Your task to perform on an android device: Empty the shopping cart on bestbuy. Add razer blade to the cart on bestbuy, then select checkout. Image 0: 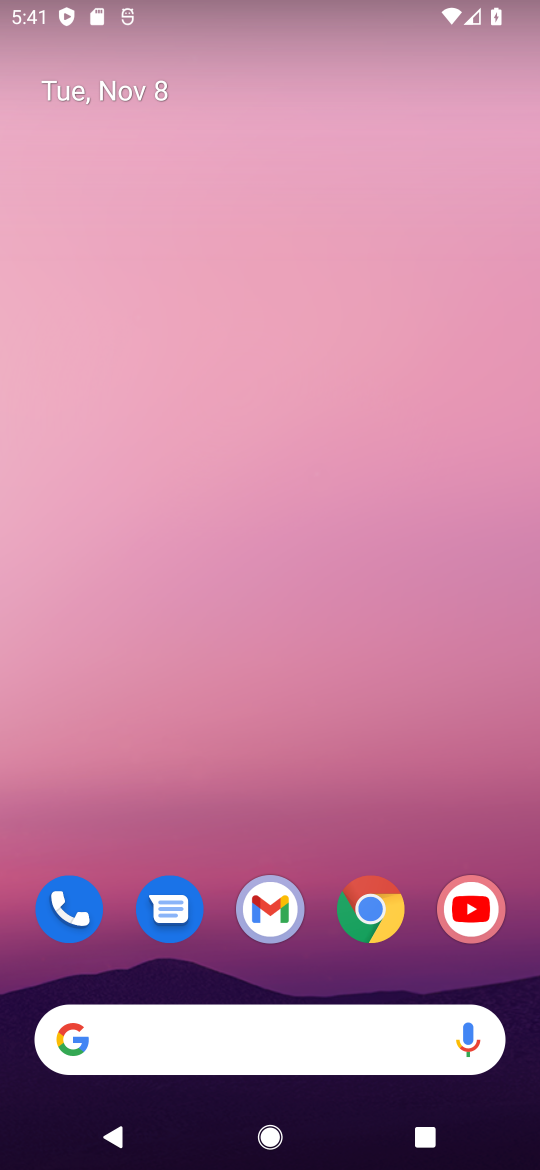
Step 0: click (350, 911)
Your task to perform on an android device: Empty the shopping cart on bestbuy. Add razer blade to the cart on bestbuy, then select checkout. Image 1: 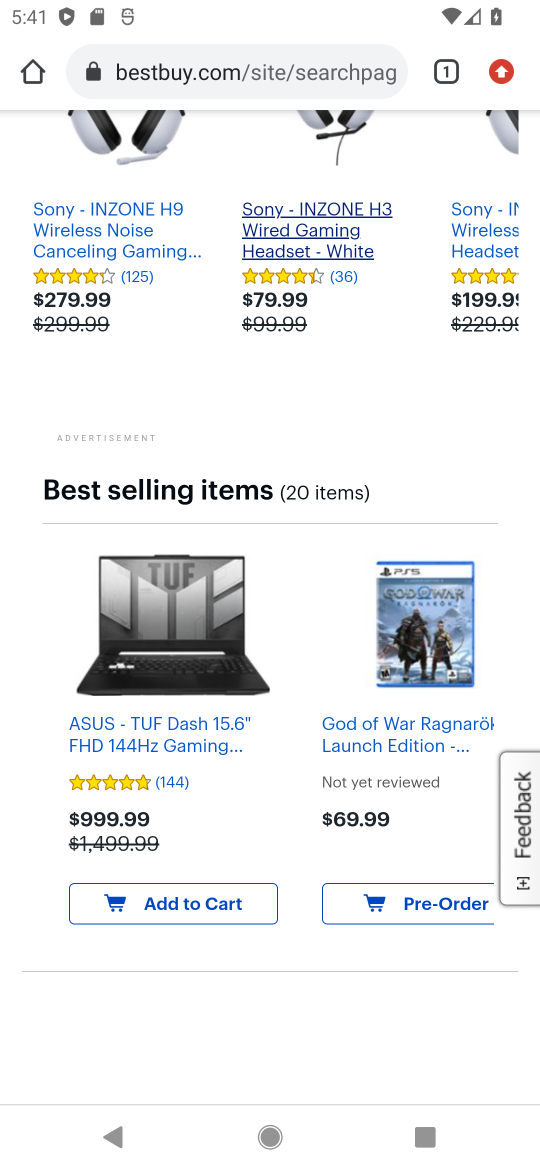
Step 1: drag from (432, 192) to (149, 1033)
Your task to perform on an android device: Empty the shopping cart on bestbuy. Add razer blade to the cart on bestbuy, then select checkout. Image 2: 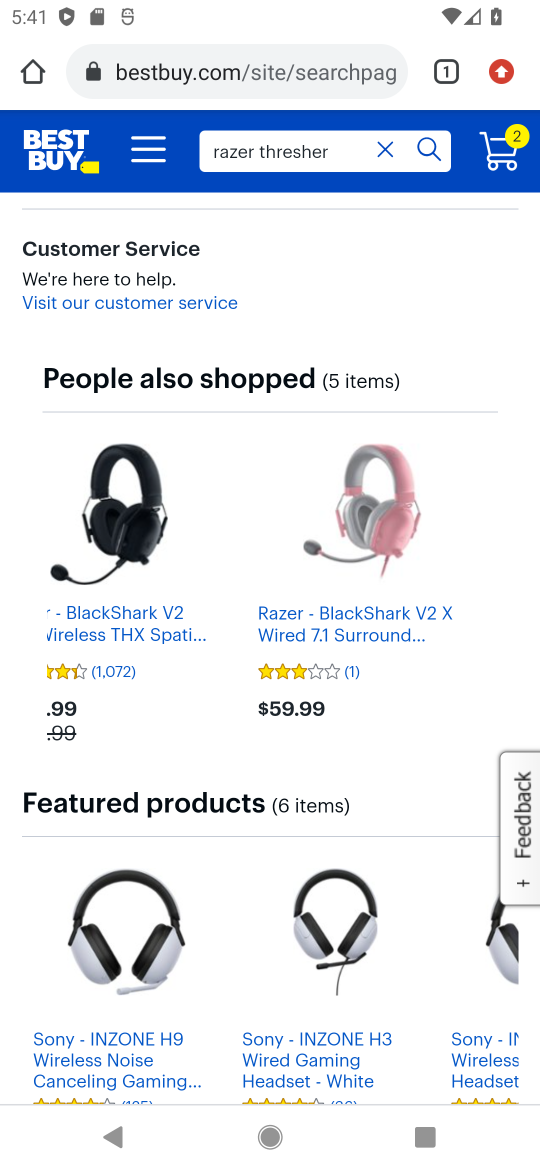
Step 2: click (504, 140)
Your task to perform on an android device: Empty the shopping cart on bestbuy. Add razer blade to the cart on bestbuy, then select checkout. Image 3: 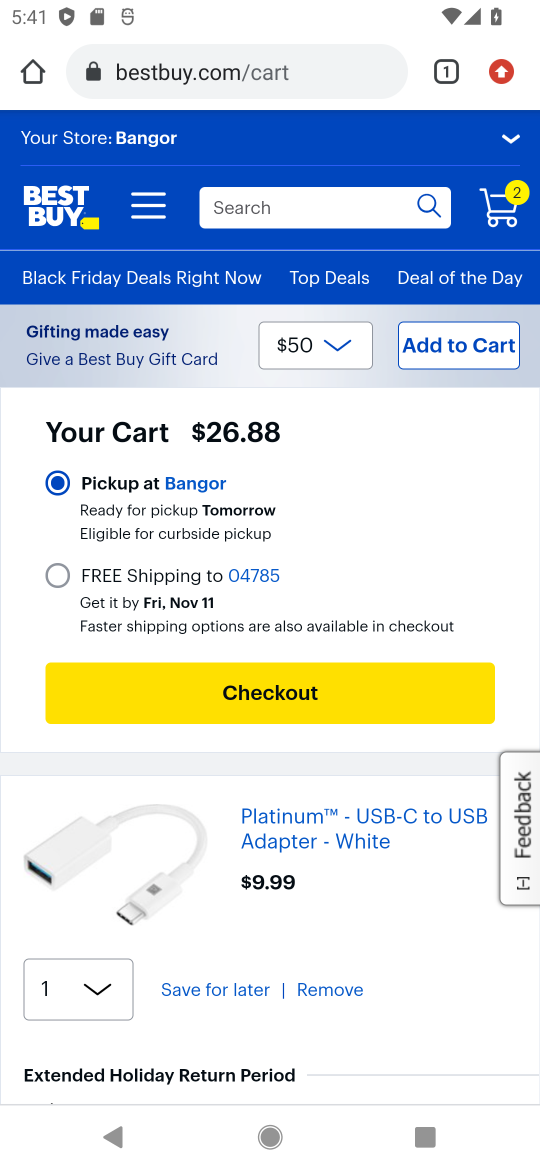
Step 3: drag from (328, 919) to (340, 440)
Your task to perform on an android device: Empty the shopping cart on bestbuy. Add razer blade to the cart on bestbuy, then select checkout. Image 4: 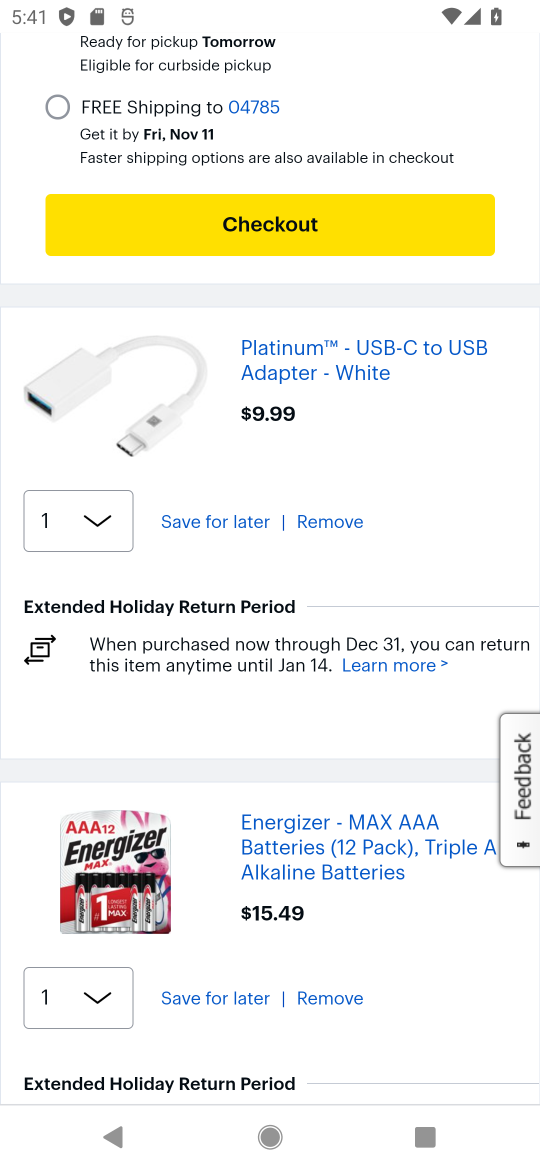
Step 4: click (327, 516)
Your task to perform on an android device: Empty the shopping cart on bestbuy. Add razer blade to the cart on bestbuy, then select checkout. Image 5: 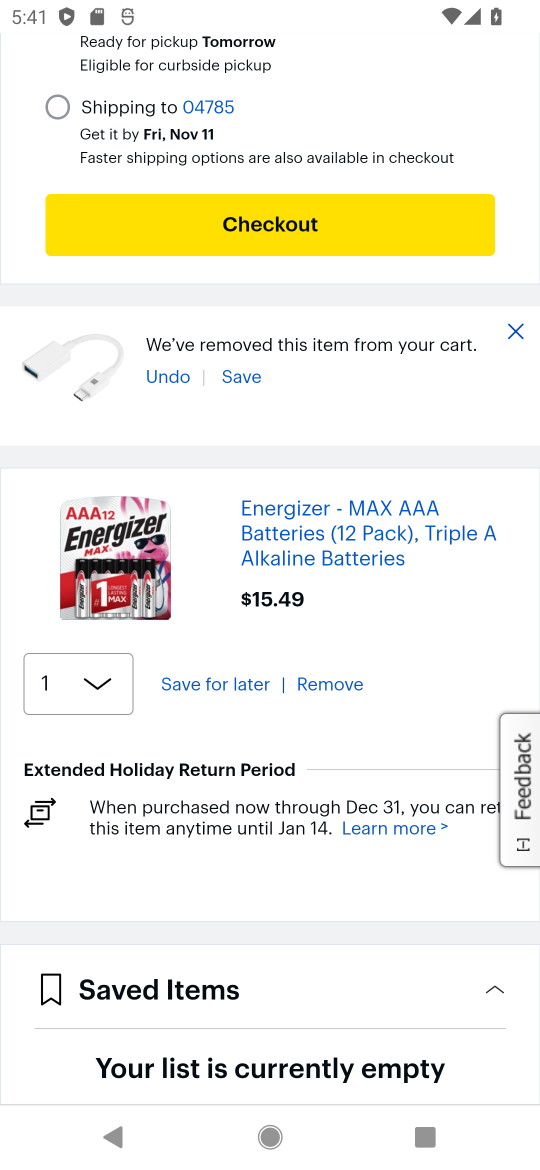
Step 5: click (338, 675)
Your task to perform on an android device: Empty the shopping cart on bestbuy. Add razer blade to the cart on bestbuy, then select checkout. Image 6: 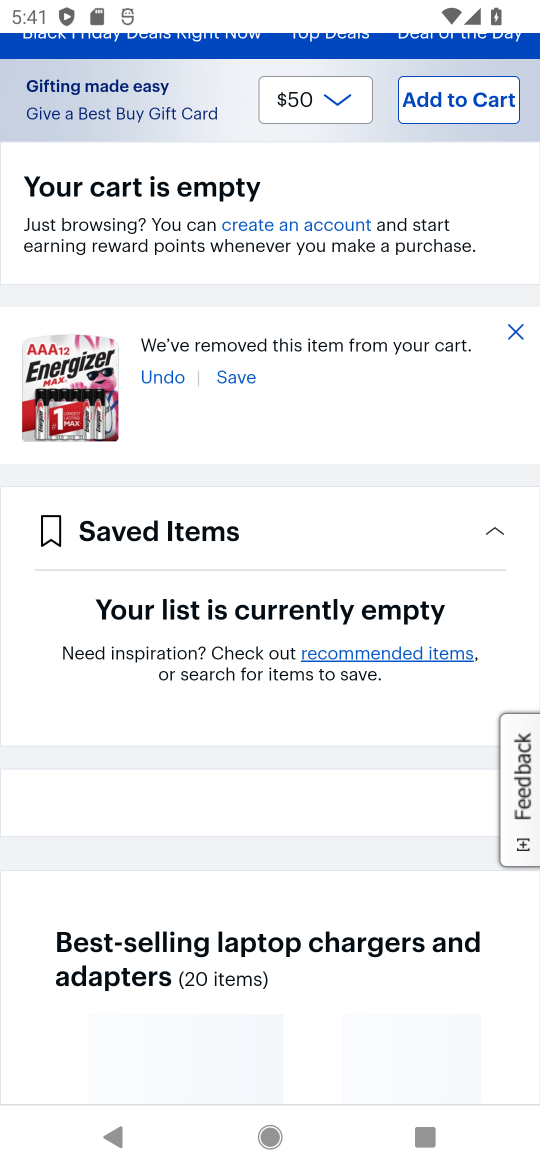
Step 6: drag from (334, 275) to (252, 561)
Your task to perform on an android device: Empty the shopping cart on bestbuy. Add razer blade to the cart on bestbuy, then select checkout. Image 7: 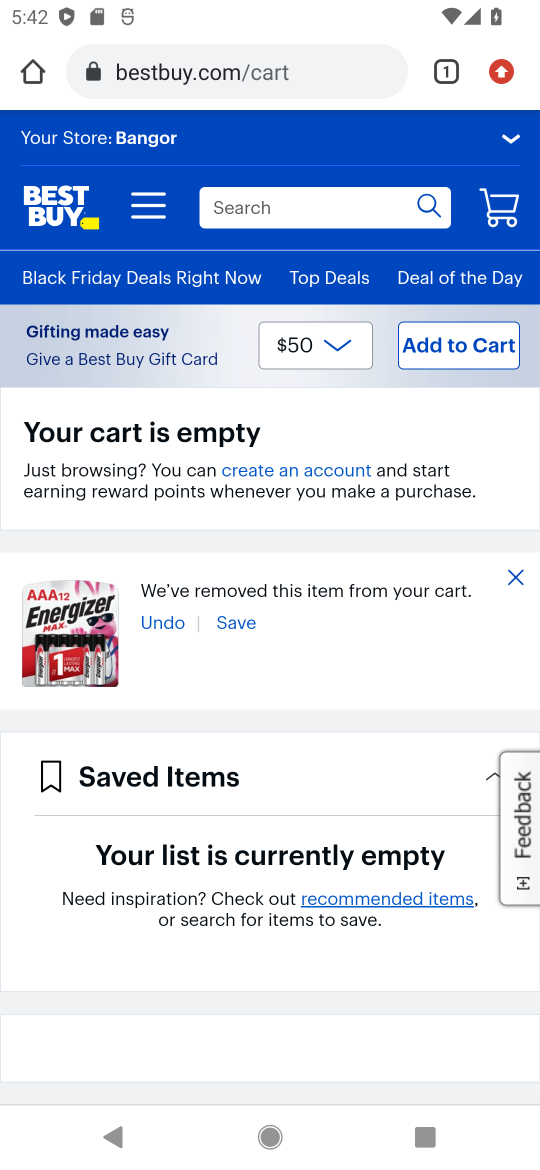
Step 7: click (303, 214)
Your task to perform on an android device: Empty the shopping cart on bestbuy. Add razer blade to the cart on bestbuy, then select checkout. Image 8: 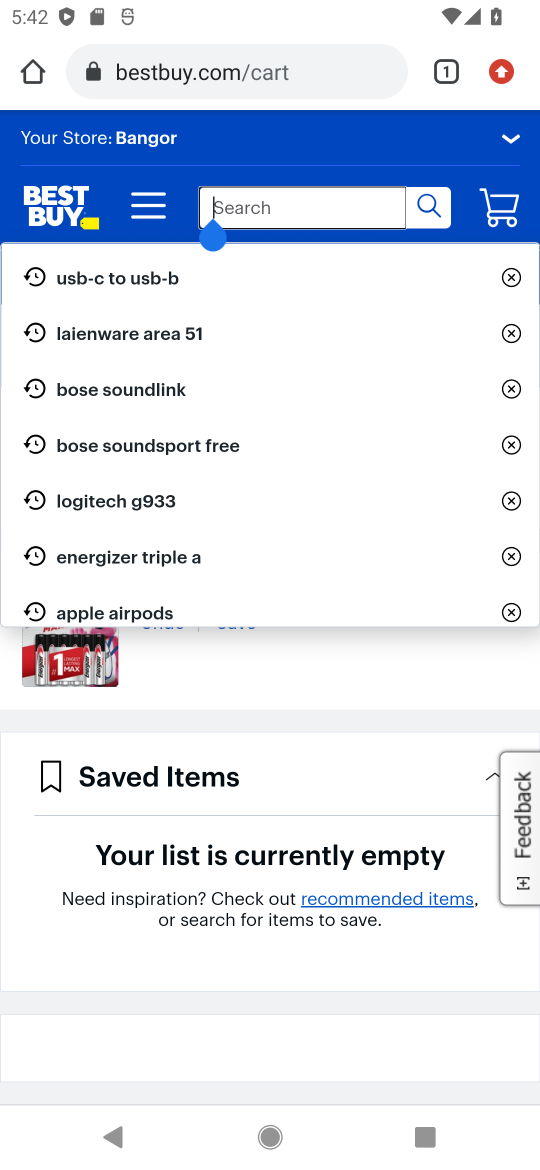
Step 8: type " razer blade"
Your task to perform on an android device: Empty the shopping cart on bestbuy. Add razer blade to the cart on bestbuy, then select checkout. Image 9: 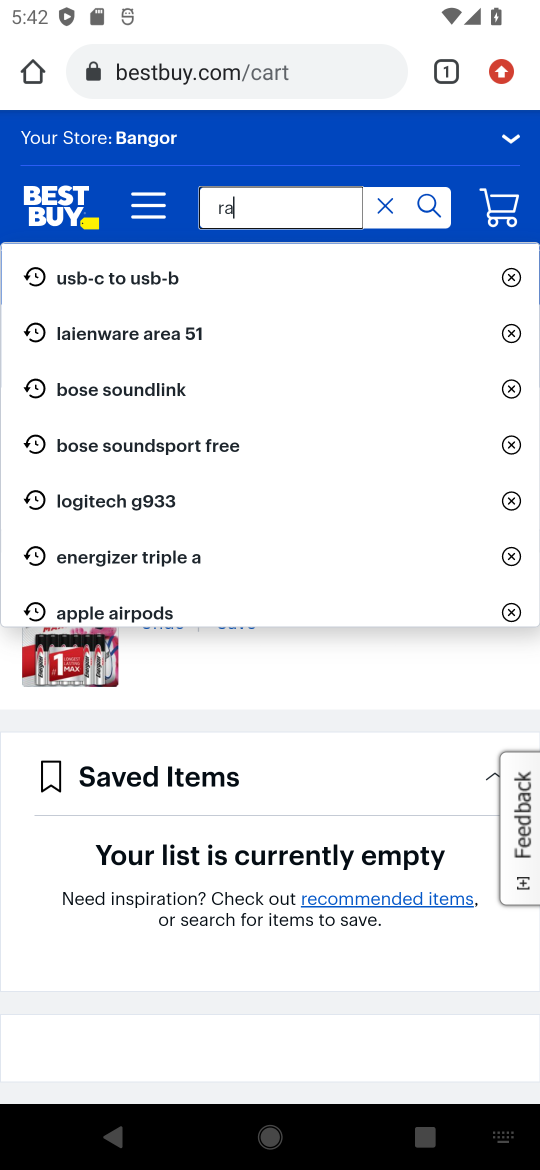
Step 9: press enter
Your task to perform on an android device: Empty the shopping cart on bestbuy. Add razer blade to the cart on bestbuy, then select checkout. Image 10: 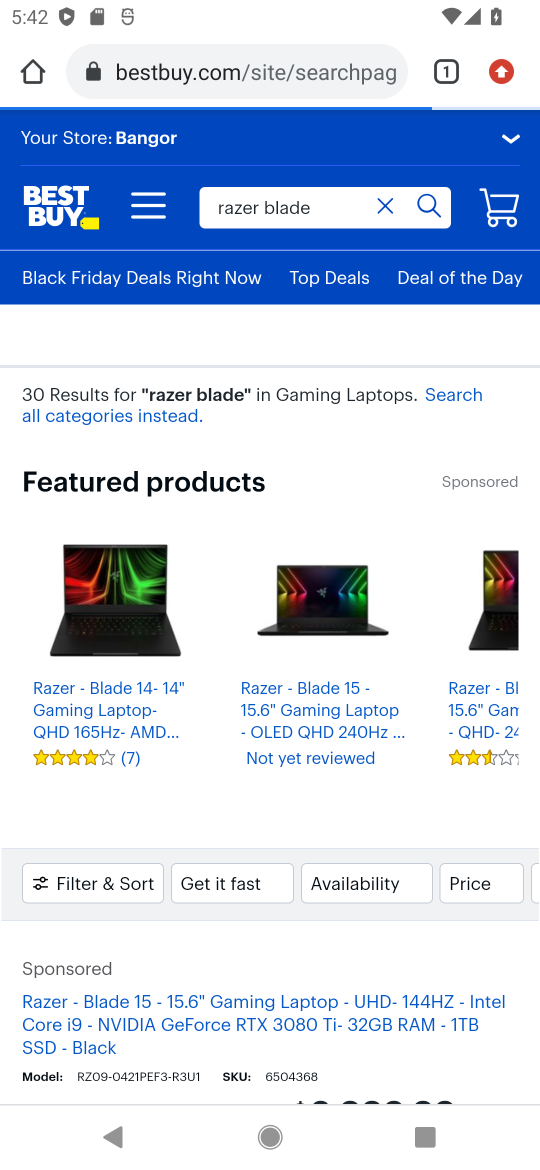
Step 10: drag from (201, 761) to (230, 477)
Your task to perform on an android device: Empty the shopping cart on bestbuy. Add razer blade to the cart on bestbuy, then select checkout. Image 11: 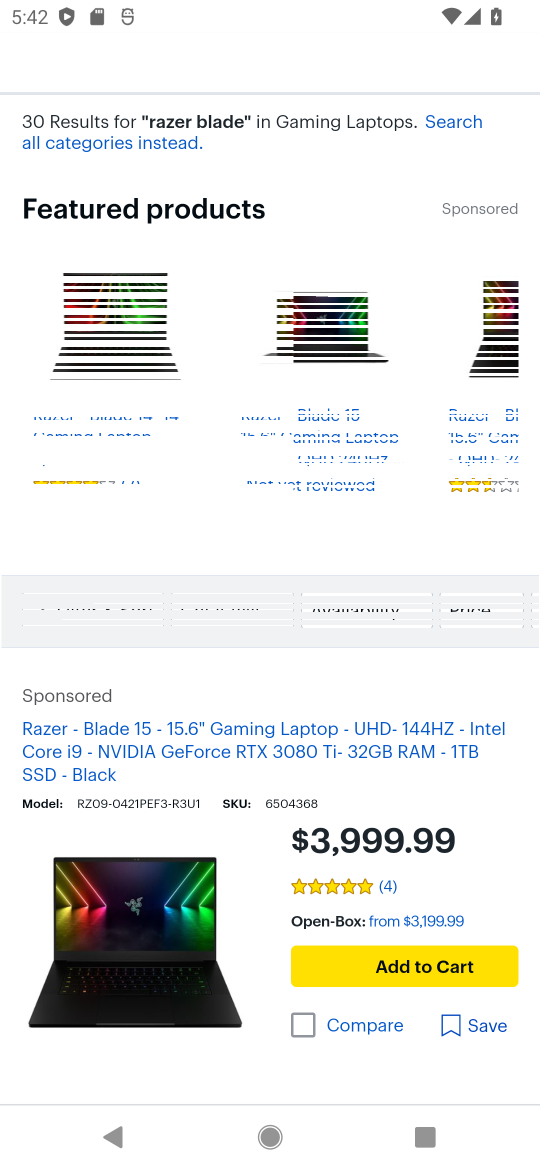
Step 11: click (106, 429)
Your task to perform on an android device: Empty the shopping cart on bestbuy. Add razer blade to the cart on bestbuy, then select checkout. Image 12: 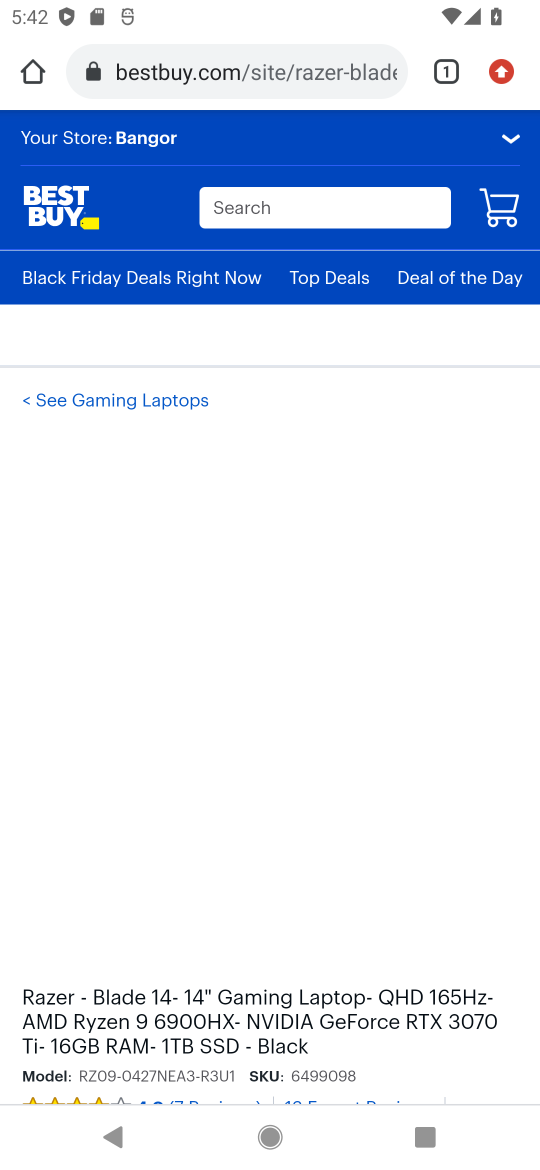
Step 12: drag from (197, 922) to (399, 108)
Your task to perform on an android device: Empty the shopping cart on bestbuy. Add razer blade to the cart on bestbuy, then select checkout. Image 13: 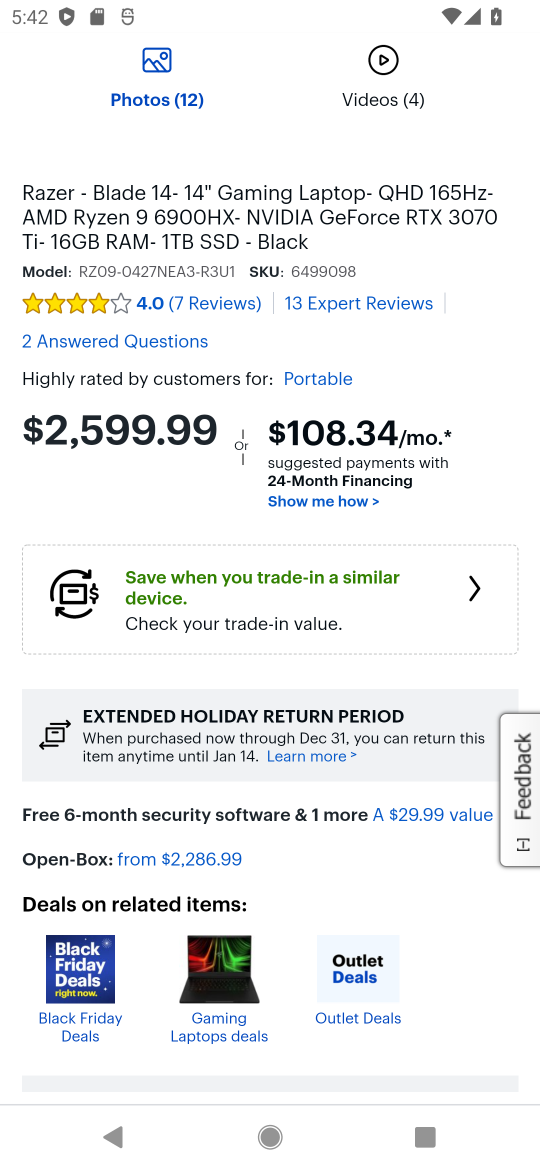
Step 13: press back button
Your task to perform on an android device: Empty the shopping cart on bestbuy. Add razer blade to the cart on bestbuy, then select checkout. Image 14: 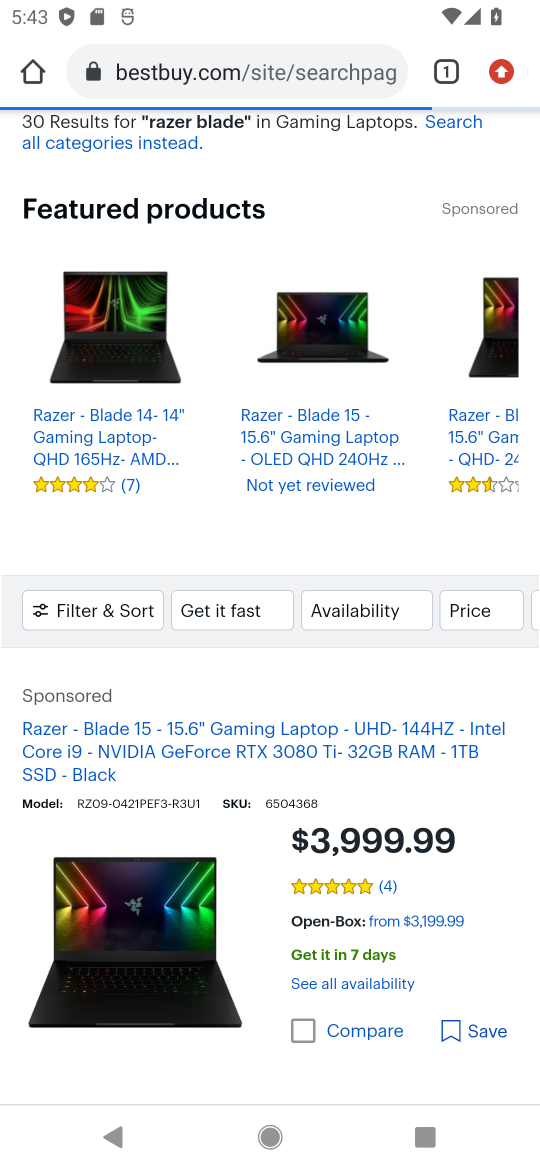
Step 14: drag from (221, 914) to (411, 563)
Your task to perform on an android device: Empty the shopping cart on bestbuy. Add razer blade to the cart on bestbuy, then select checkout. Image 15: 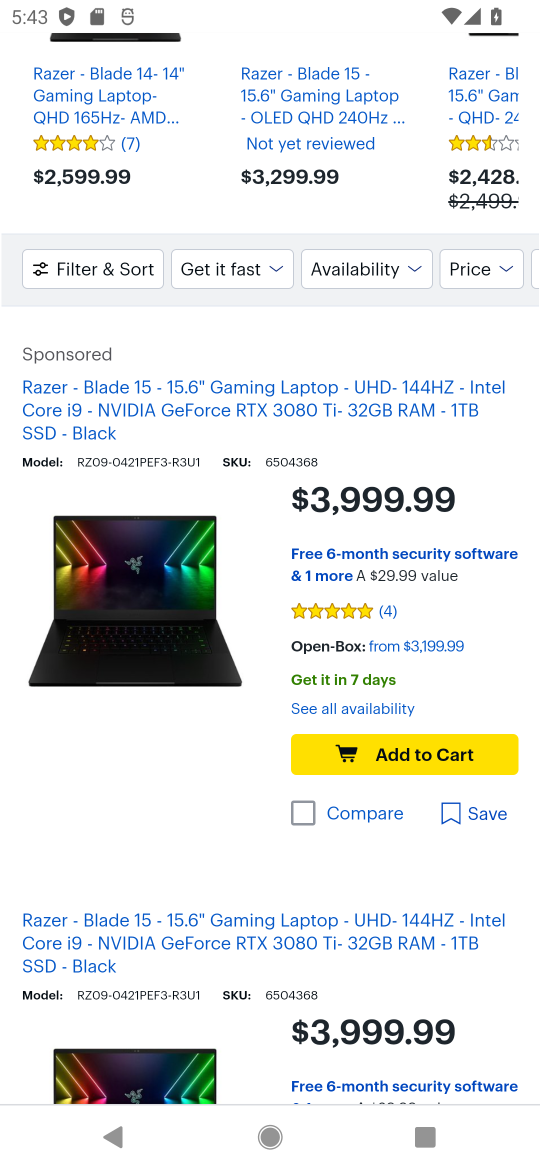
Step 15: drag from (259, 845) to (425, 485)
Your task to perform on an android device: Empty the shopping cart on bestbuy. Add razer blade to the cart on bestbuy, then select checkout. Image 16: 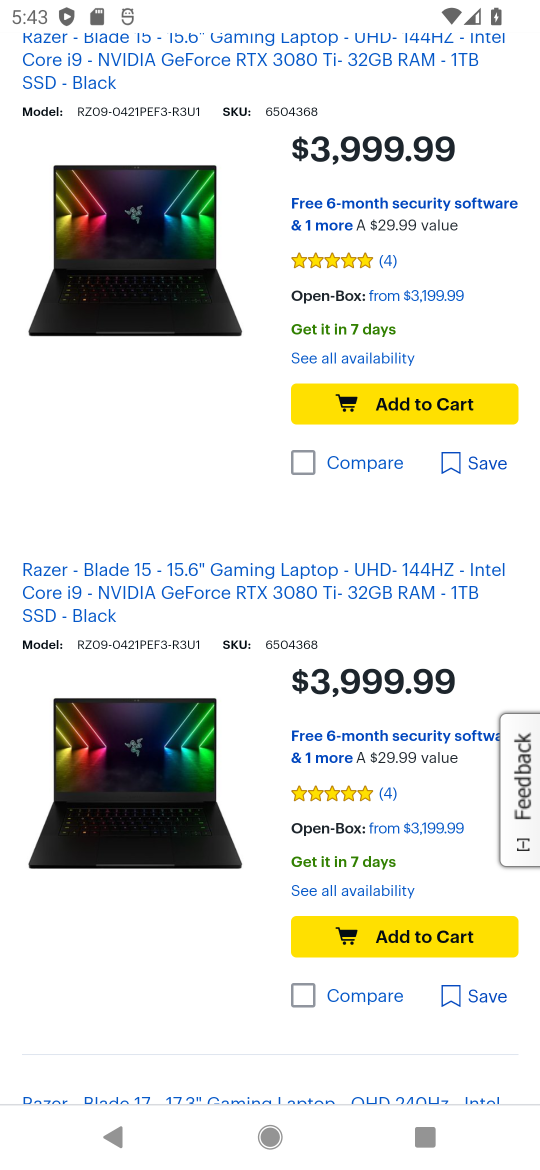
Step 16: click (389, 393)
Your task to perform on an android device: Empty the shopping cart on bestbuy. Add razer blade to the cart on bestbuy, then select checkout. Image 17: 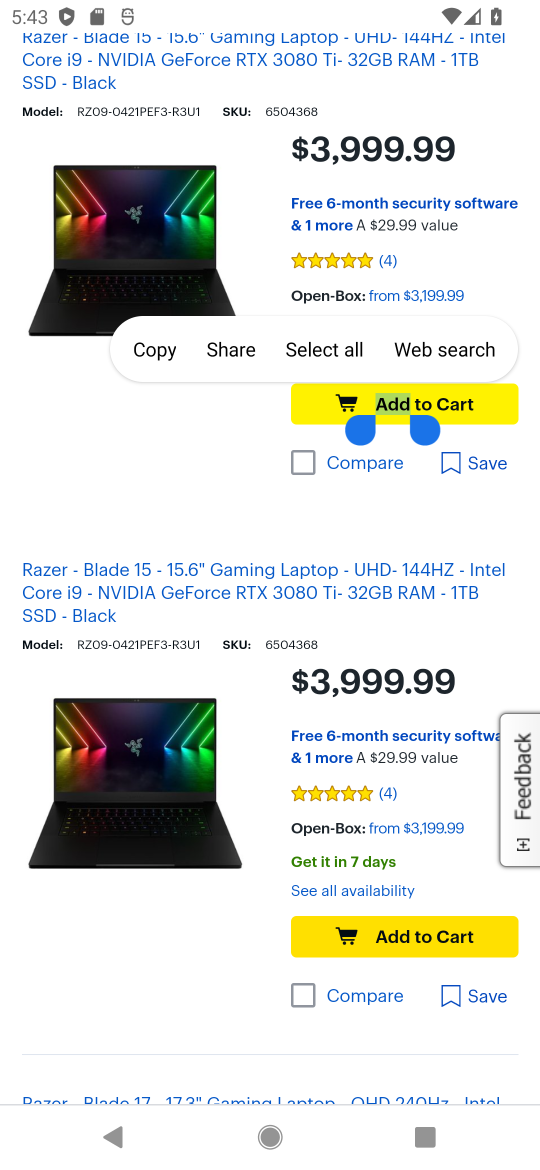
Step 17: click (446, 403)
Your task to perform on an android device: Empty the shopping cart on bestbuy. Add razer blade to the cart on bestbuy, then select checkout. Image 18: 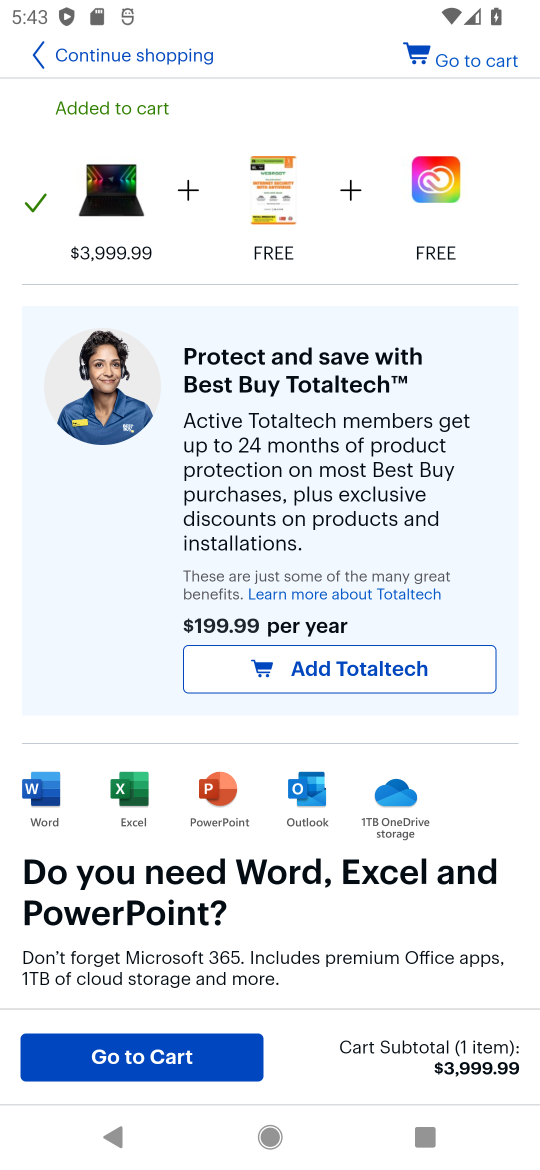
Step 18: click (474, 55)
Your task to perform on an android device: Empty the shopping cart on bestbuy. Add razer blade to the cart on bestbuy, then select checkout. Image 19: 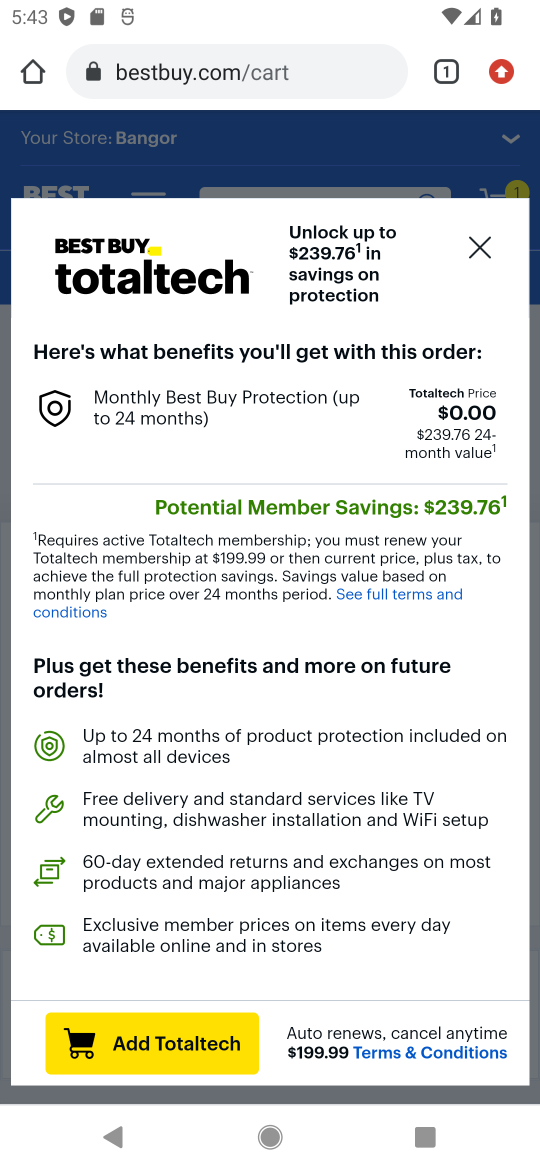
Step 19: click (478, 238)
Your task to perform on an android device: Empty the shopping cart on bestbuy. Add razer blade to the cart on bestbuy, then select checkout. Image 20: 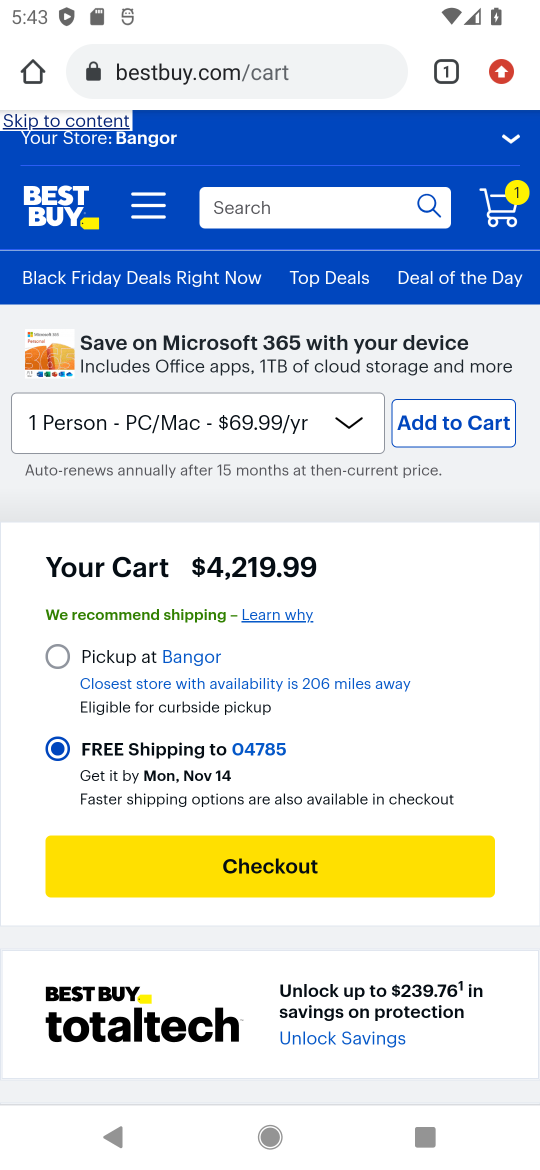
Step 20: click (293, 858)
Your task to perform on an android device: Empty the shopping cart on bestbuy. Add razer blade to the cart on bestbuy, then select checkout. Image 21: 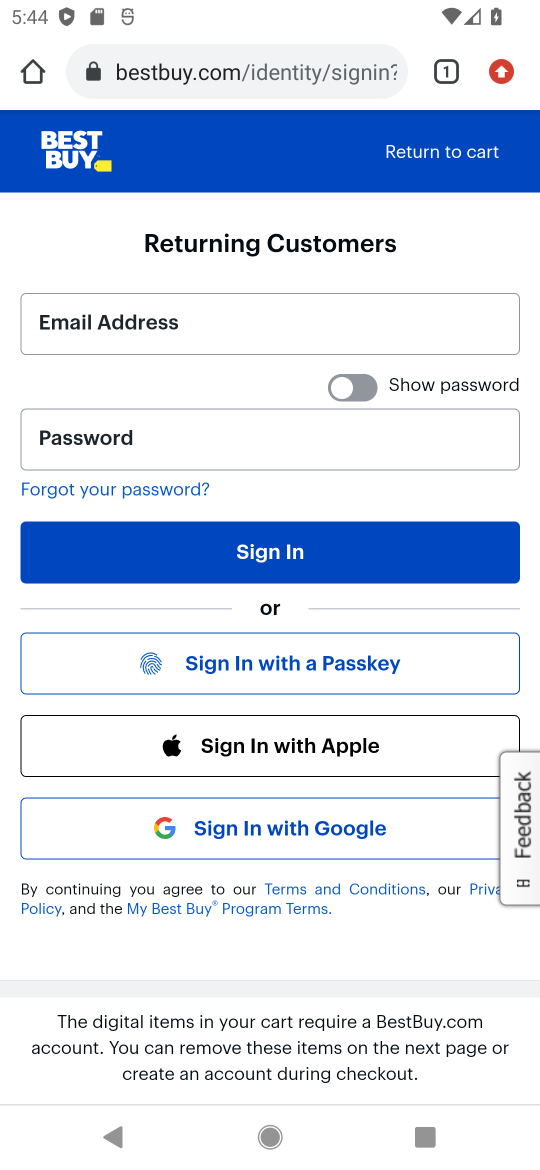
Step 21: task complete